Your task to perform on an android device: Empty the shopping cart on target.com. Search for amazon basics triple a on target.com, select the first entry, and add it to the cart. Image 0: 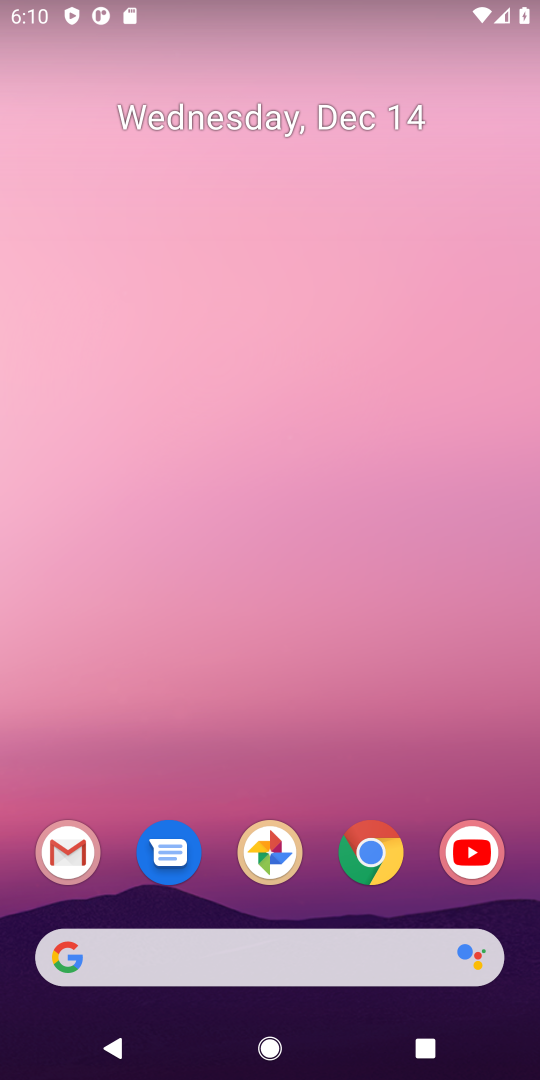
Step 0: click (377, 860)
Your task to perform on an android device: Empty the shopping cart on target.com. Search for amazon basics triple a on target.com, select the first entry, and add it to the cart. Image 1: 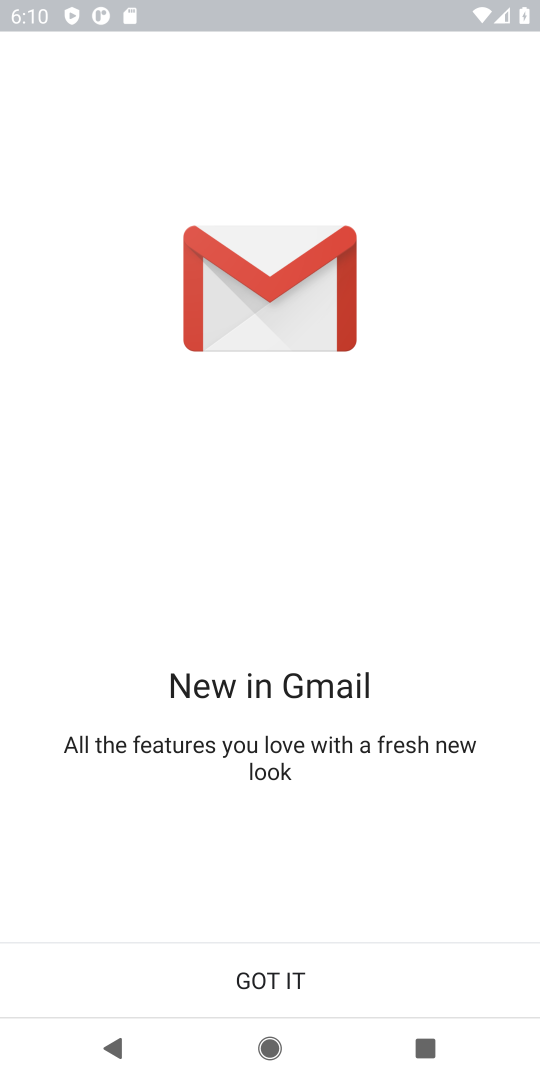
Step 1: press home button
Your task to perform on an android device: Empty the shopping cart on target.com. Search for amazon basics triple a on target.com, select the first entry, and add it to the cart. Image 2: 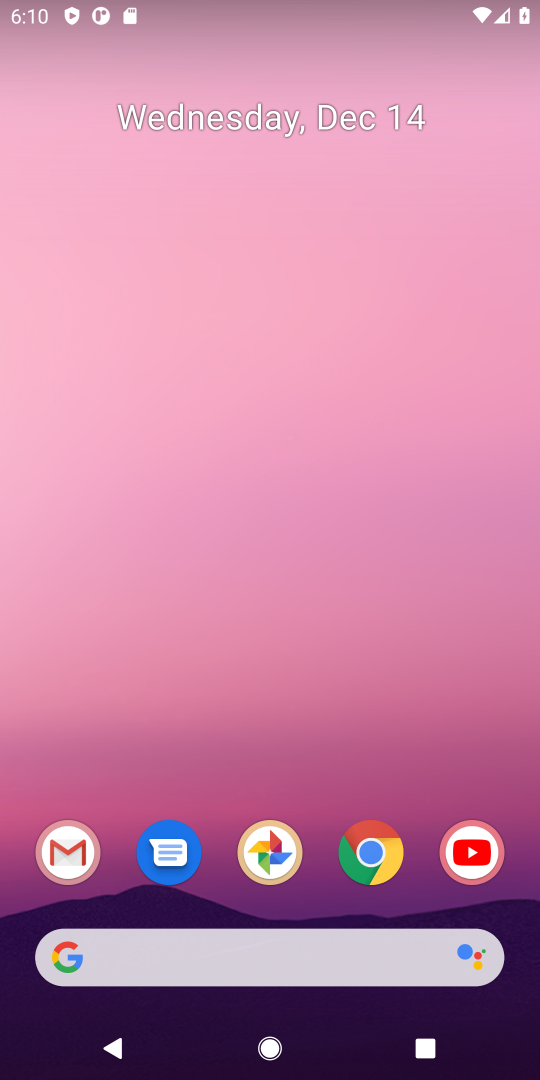
Step 2: click (362, 854)
Your task to perform on an android device: Empty the shopping cart on target.com. Search for amazon basics triple a on target.com, select the first entry, and add it to the cart. Image 3: 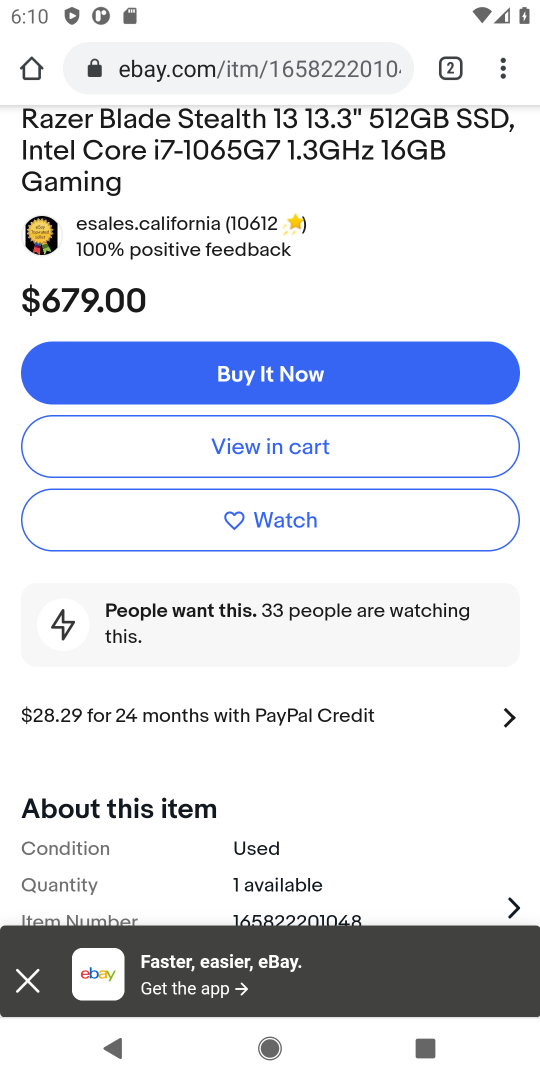
Step 3: click (443, 67)
Your task to perform on an android device: Empty the shopping cart on target.com. Search for amazon basics triple a on target.com, select the first entry, and add it to the cart. Image 4: 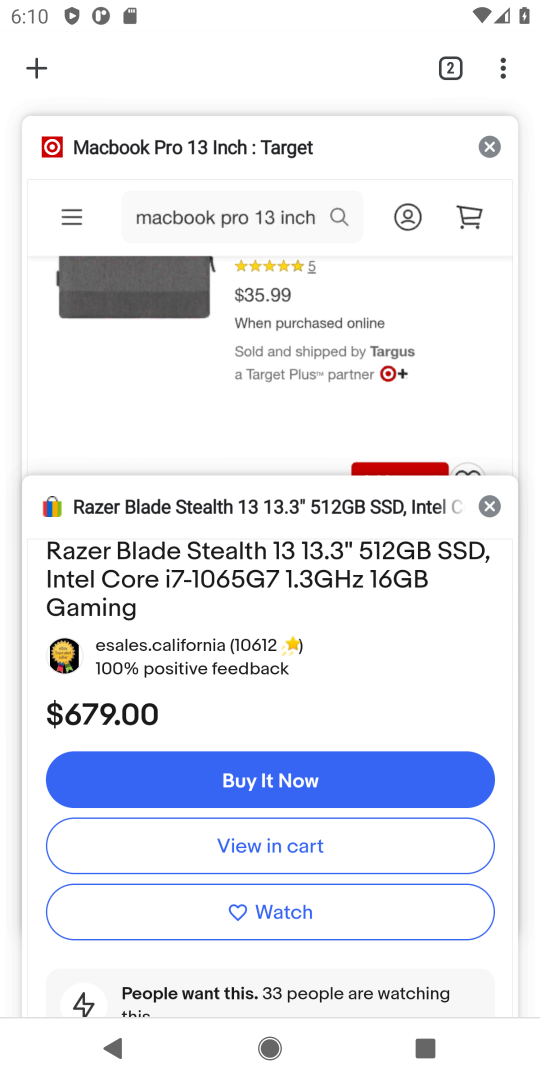
Step 4: click (244, 266)
Your task to perform on an android device: Empty the shopping cart on target.com. Search for amazon basics triple a on target.com, select the first entry, and add it to the cart. Image 5: 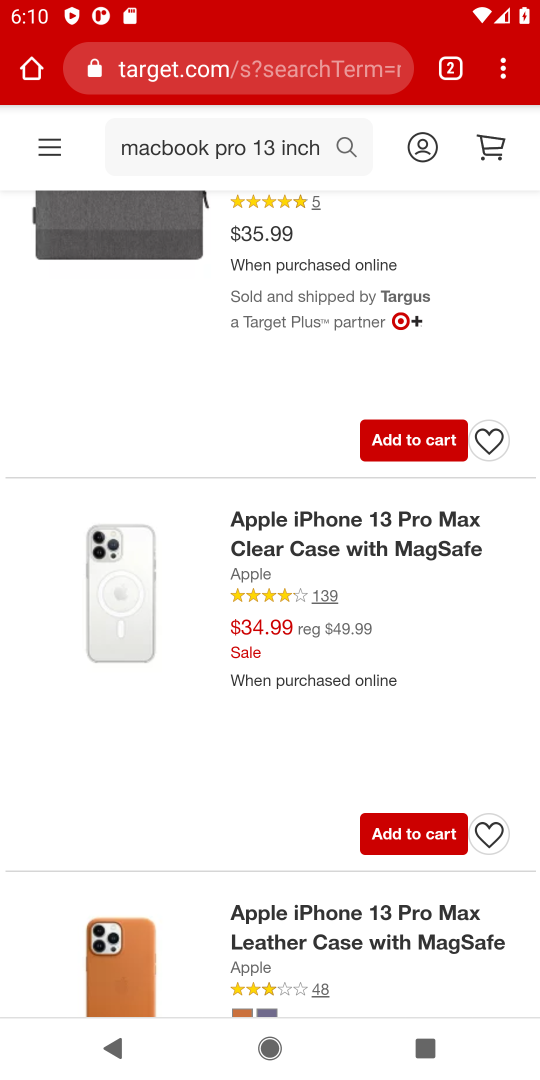
Step 5: click (507, 136)
Your task to perform on an android device: Empty the shopping cart on target.com. Search for amazon basics triple a on target.com, select the first entry, and add it to the cart. Image 6: 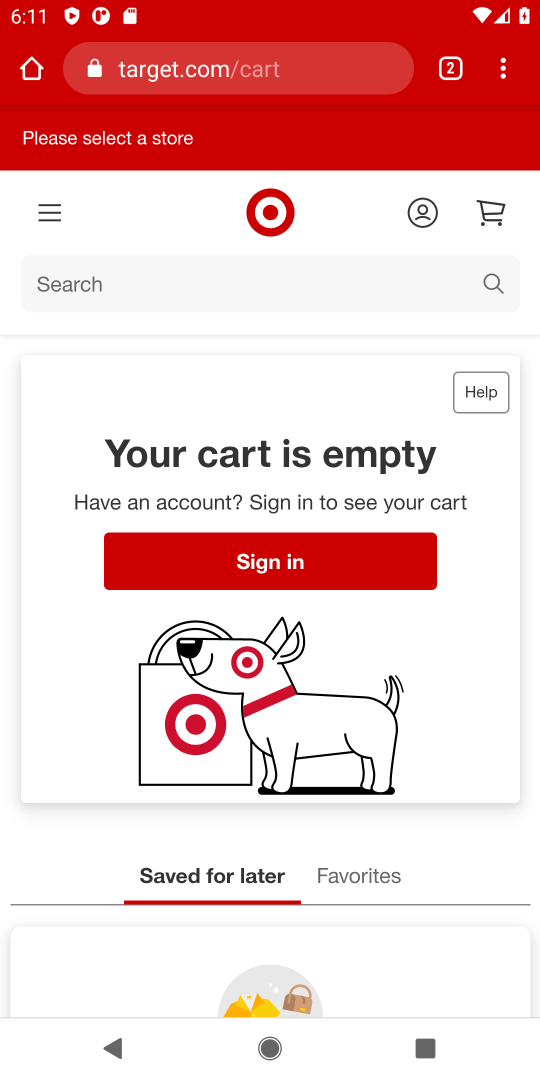
Step 6: click (300, 292)
Your task to perform on an android device: Empty the shopping cart on target.com. Search for amazon basics triple a on target.com, select the first entry, and add it to the cart. Image 7: 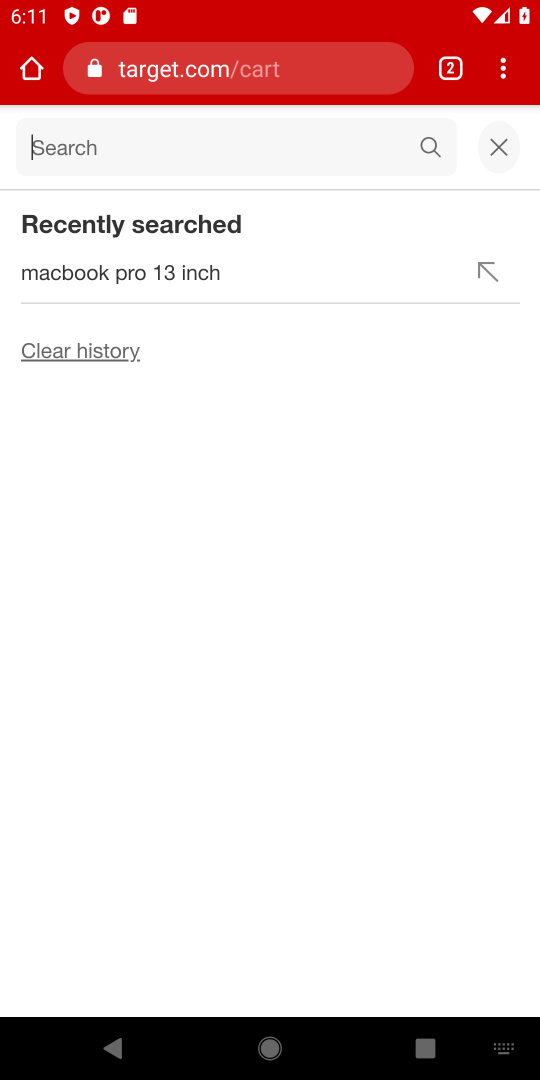
Step 7: type "amazon basics triple a"
Your task to perform on an android device: Empty the shopping cart on target.com. Search for amazon basics triple a on target.com, select the first entry, and add it to the cart. Image 8: 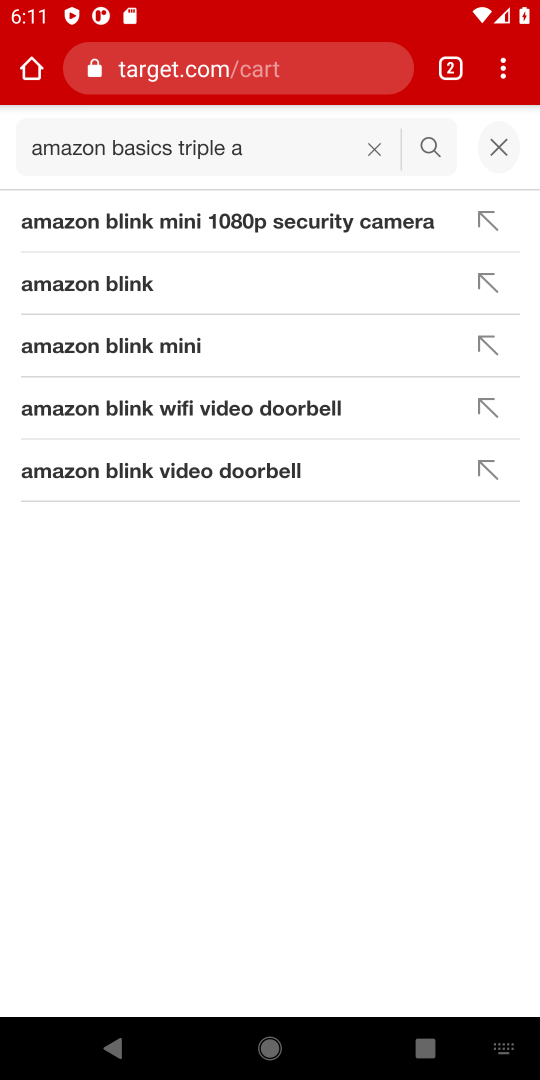
Step 8: click (426, 149)
Your task to perform on an android device: Empty the shopping cart on target.com. Search for amazon basics triple a on target.com, select the first entry, and add it to the cart. Image 9: 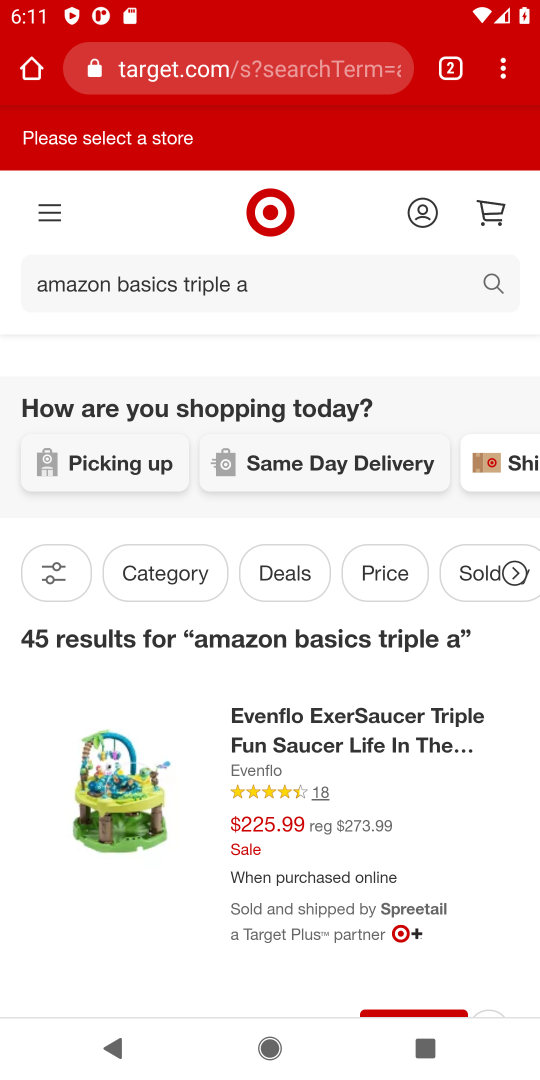
Step 9: task complete